Your task to perform on an android device: turn off improve location accuracy Image 0: 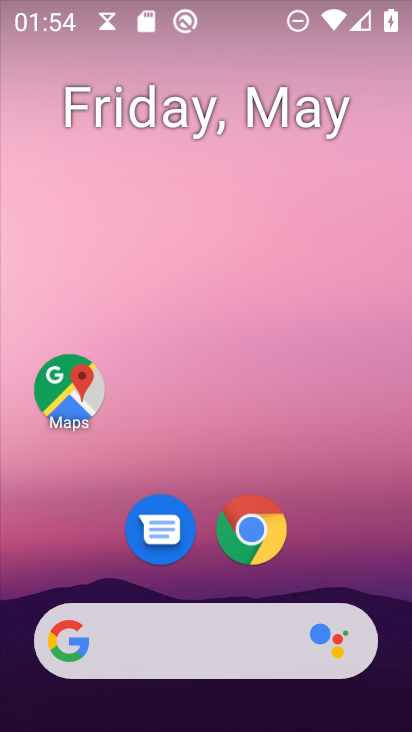
Step 0: drag from (305, 644) to (280, 276)
Your task to perform on an android device: turn off improve location accuracy Image 1: 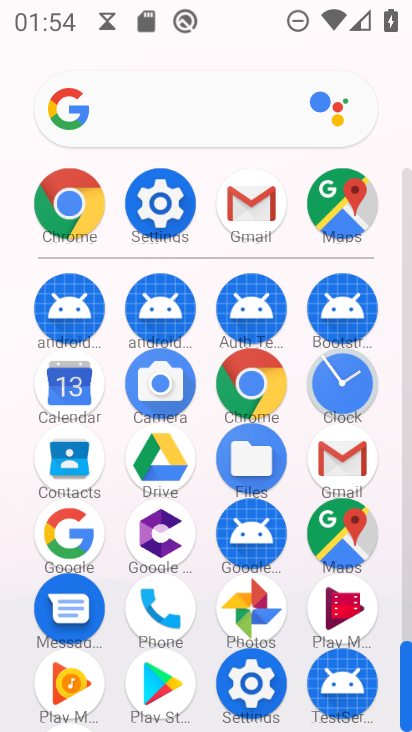
Step 1: click (134, 199)
Your task to perform on an android device: turn off improve location accuracy Image 2: 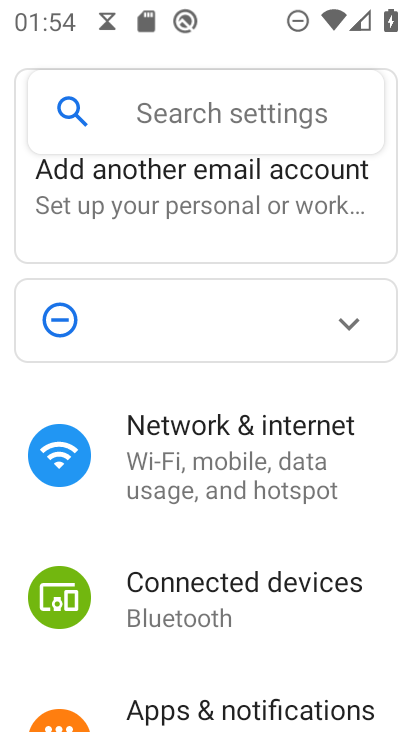
Step 2: drag from (207, 646) to (207, 444)
Your task to perform on an android device: turn off improve location accuracy Image 3: 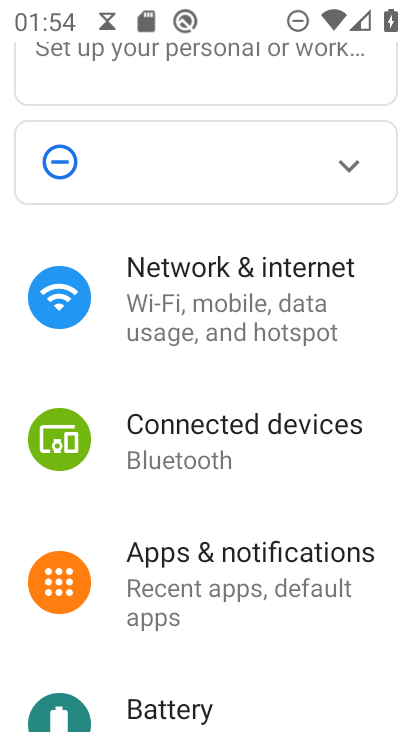
Step 3: drag from (227, 525) to (227, 184)
Your task to perform on an android device: turn off improve location accuracy Image 4: 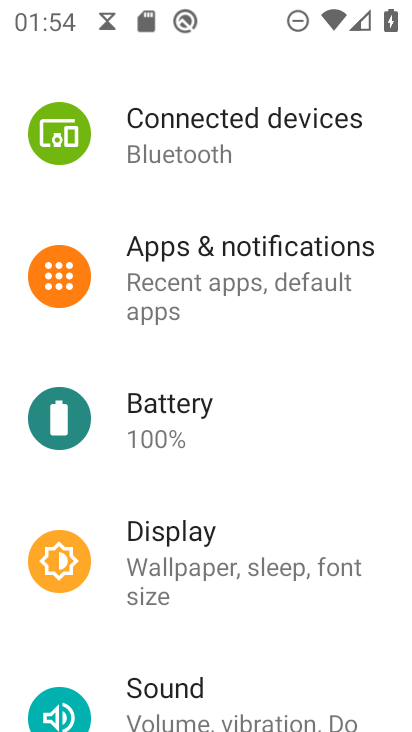
Step 4: drag from (257, 635) to (292, 208)
Your task to perform on an android device: turn off improve location accuracy Image 5: 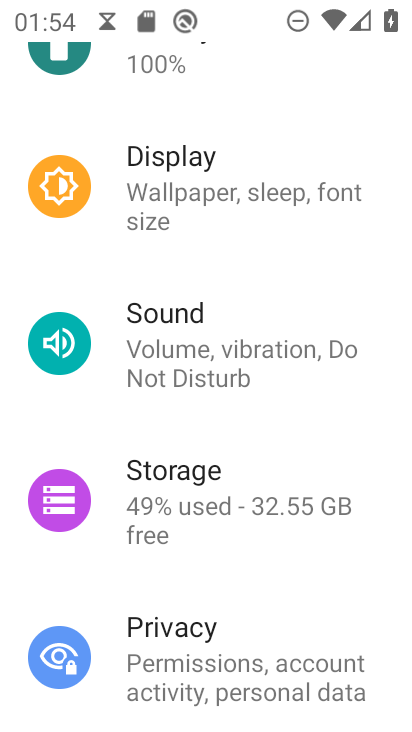
Step 5: drag from (247, 561) to (270, 245)
Your task to perform on an android device: turn off improve location accuracy Image 6: 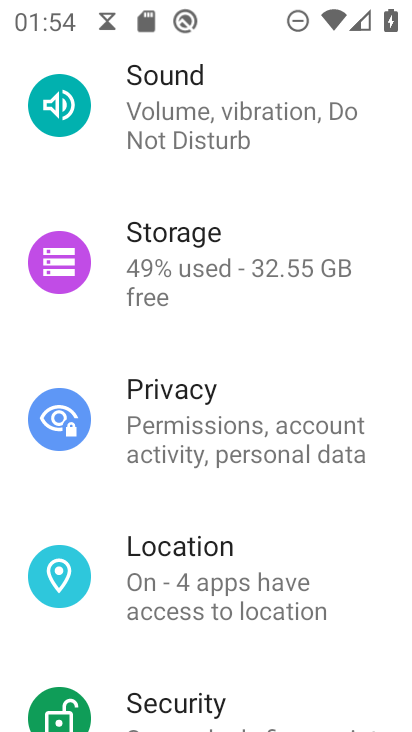
Step 6: drag from (236, 670) to (250, 512)
Your task to perform on an android device: turn off improve location accuracy Image 7: 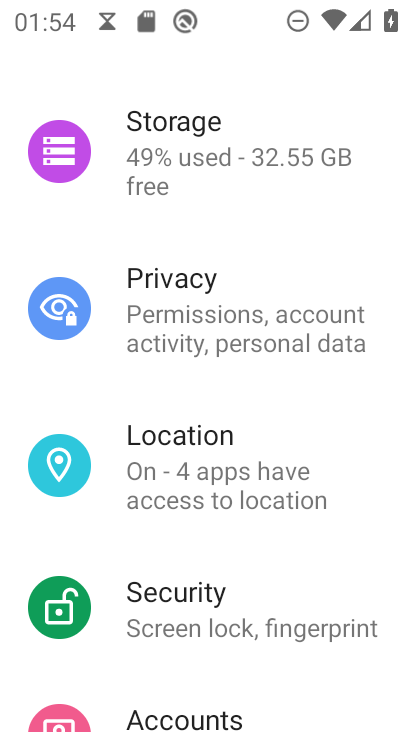
Step 7: click (210, 465)
Your task to perform on an android device: turn off improve location accuracy Image 8: 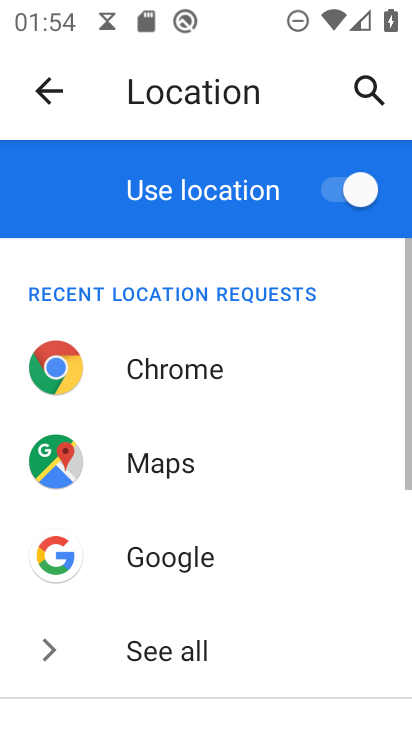
Step 8: drag from (184, 622) to (223, 122)
Your task to perform on an android device: turn off improve location accuracy Image 9: 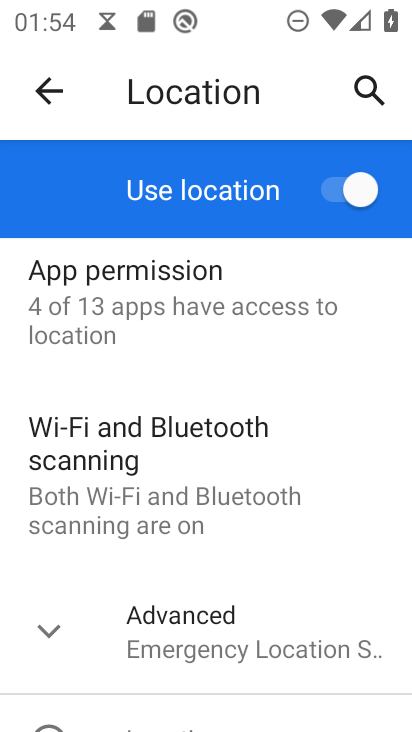
Step 9: click (222, 652)
Your task to perform on an android device: turn off improve location accuracy Image 10: 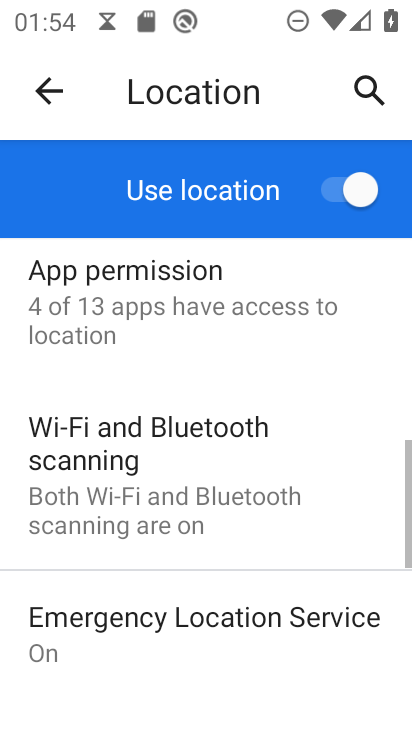
Step 10: drag from (201, 601) to (226, 384)
Your task to perform on an android device: turn off improve location accuracy Image 11: 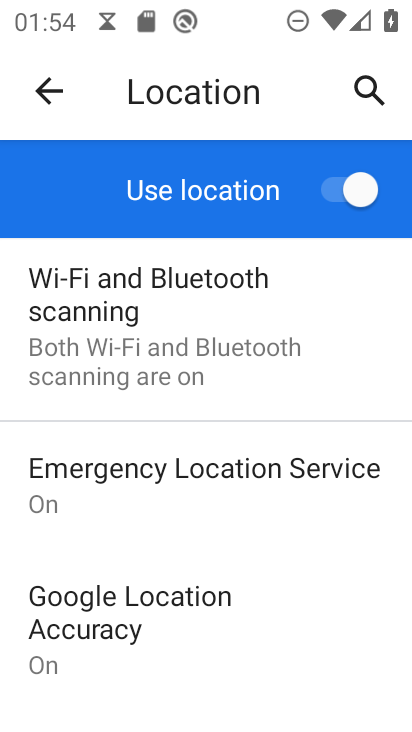
Step 11: click (139, 501)
Your task to perform on an android device: turn off improve location accuracy Image 12: 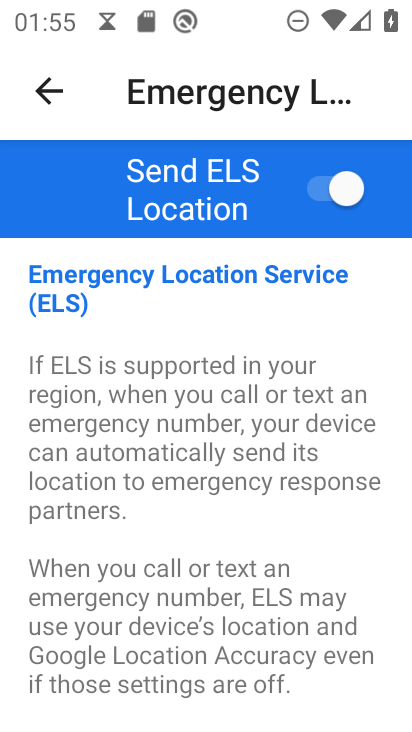
Step 12: click (29, 96)
Your task to perform on an android device: turn off improve location accuracy Image 13: 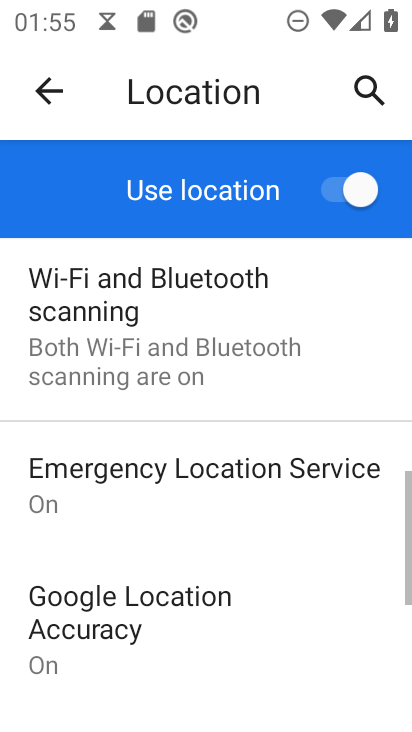
Step 13: click (116, 629)
Your task to perform on an android device: turn off improve location accuracy Image 14: 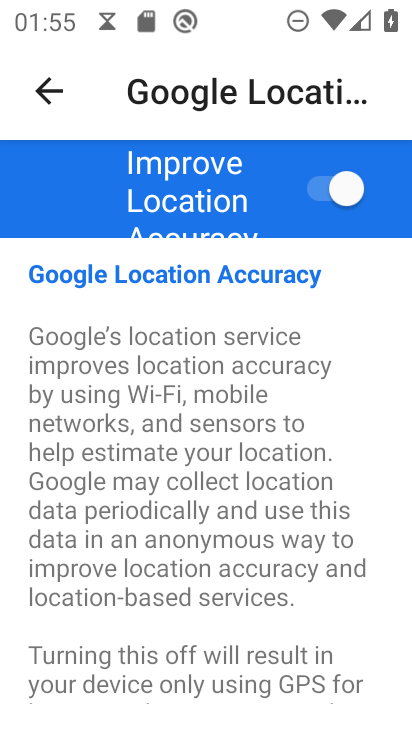
Step 14: click (330, 184)
Your task to perform on an android device: turn off improve location accuracy Image 15: 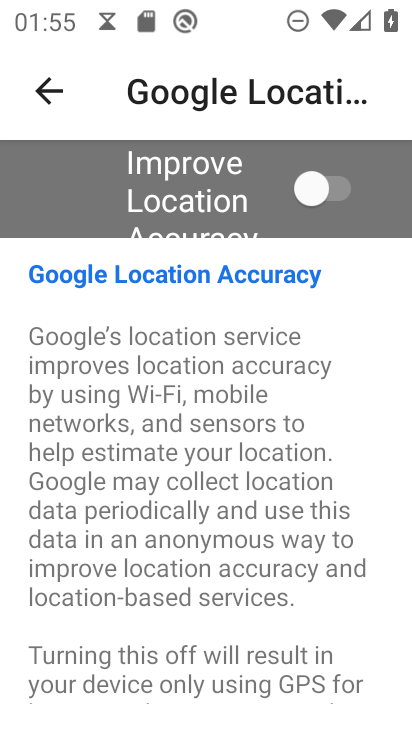
Step 15: task complete